Your task to perform on an android device: Search for "alienware area 51" on newegg, select the first entry, add it to the cart, then select checkout. Image 0: 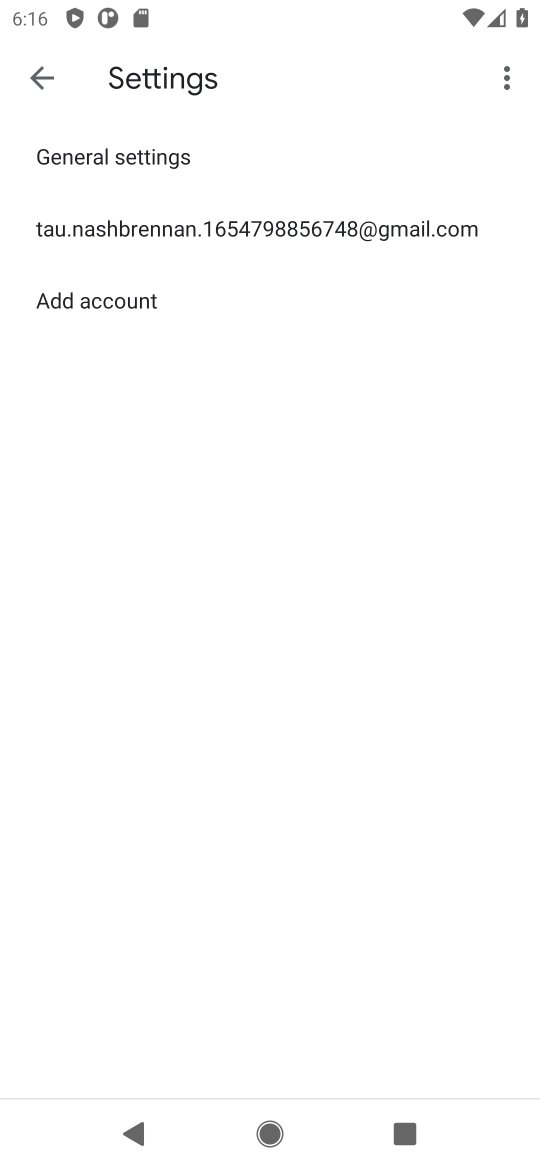
Step 0: press home button
Your task to perform on an android device: Search for "alienware area 51" on newegg, select the first entry, add it to the cart, then select checkout. Image 1: 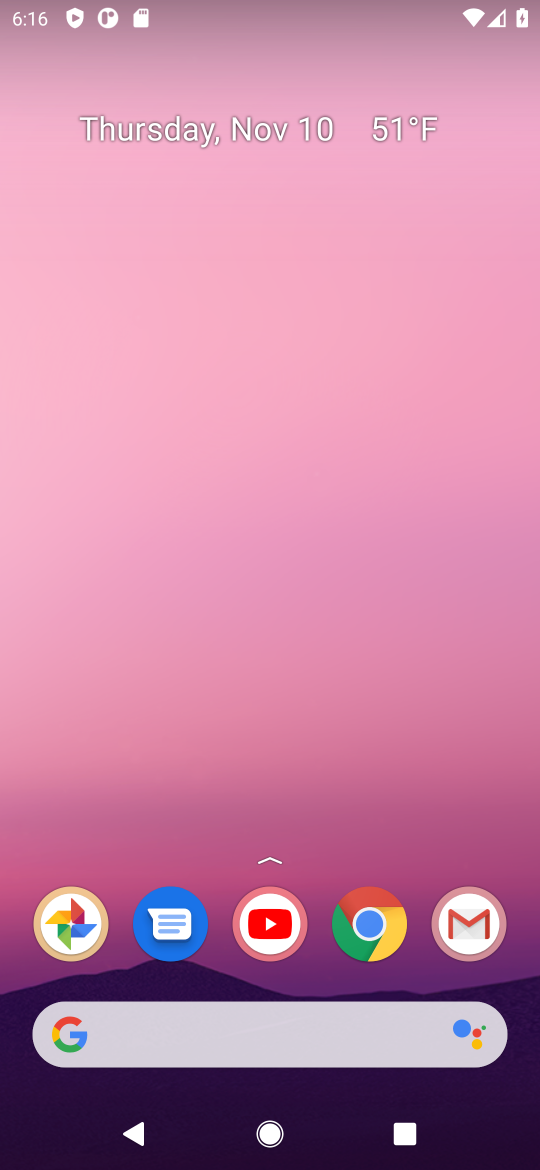
Step 1: click (384, 937)
Your task to perform on an android device: Search for "alienware area 51" on newegg, select the first entry, add it to the cart, then select checkout. Image 2: 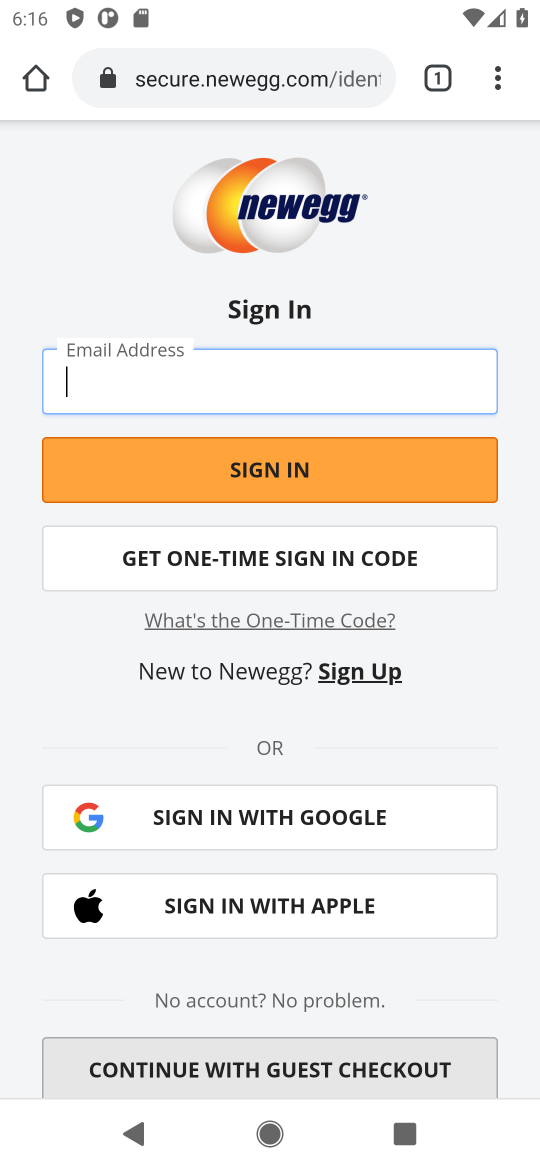
Step 2: click (255, 85)
Your task to perform on an android device: Search for "alienware area 51" on newegg, select the first entry, add it to the cart, then select checkout. Image 3: 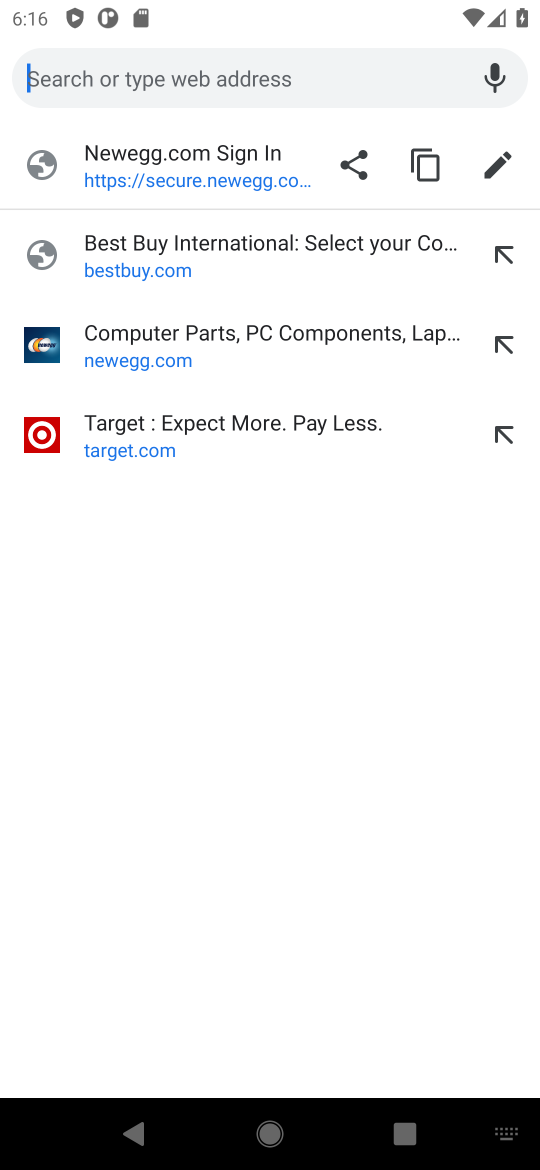
Step 3: click (116, 344)
Your task to perform on an android device: Search for "alienware area 51" on newegg, select the first entry, add it to the cart, then select checkout. Image 4: 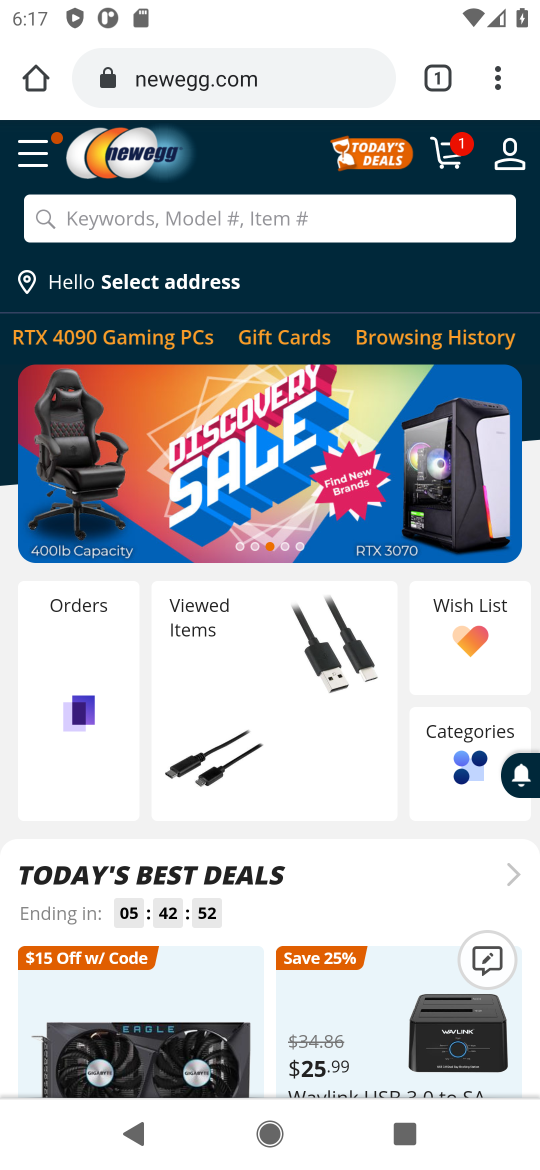
Step 4: click (147, 221)
Your task to perform on an android device: Search for "alienware area 51" on newegg, select the first entry, add it to the cart, then select checkout. Image 5: 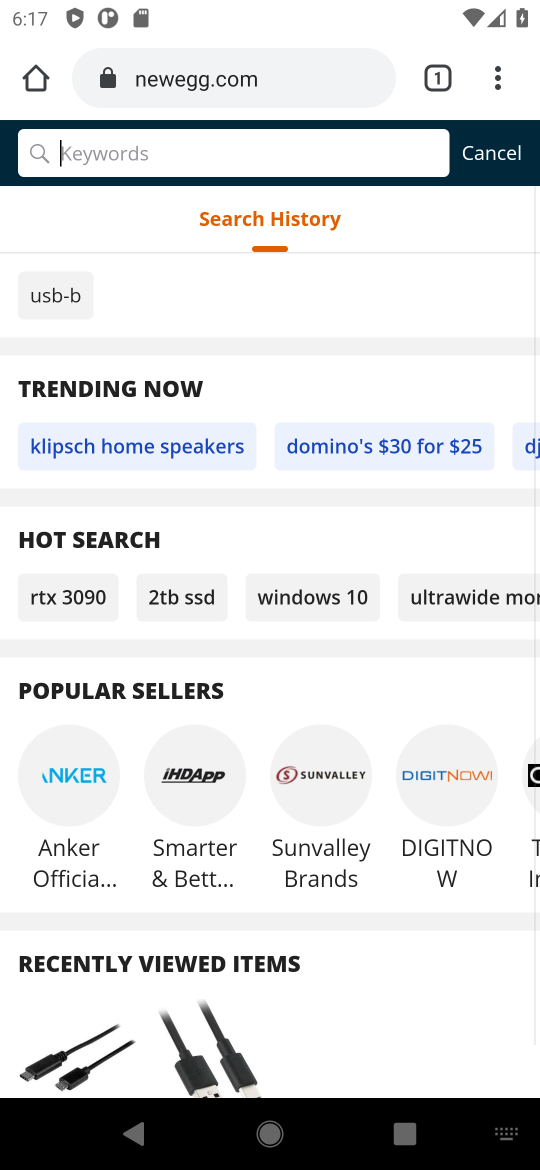
Step 5: type "alienware area 51"
Your task to perform on an android device: Search for "alienware area 51" on newegg, select the first entry, add it to the cart, then select checkout. Image 6: 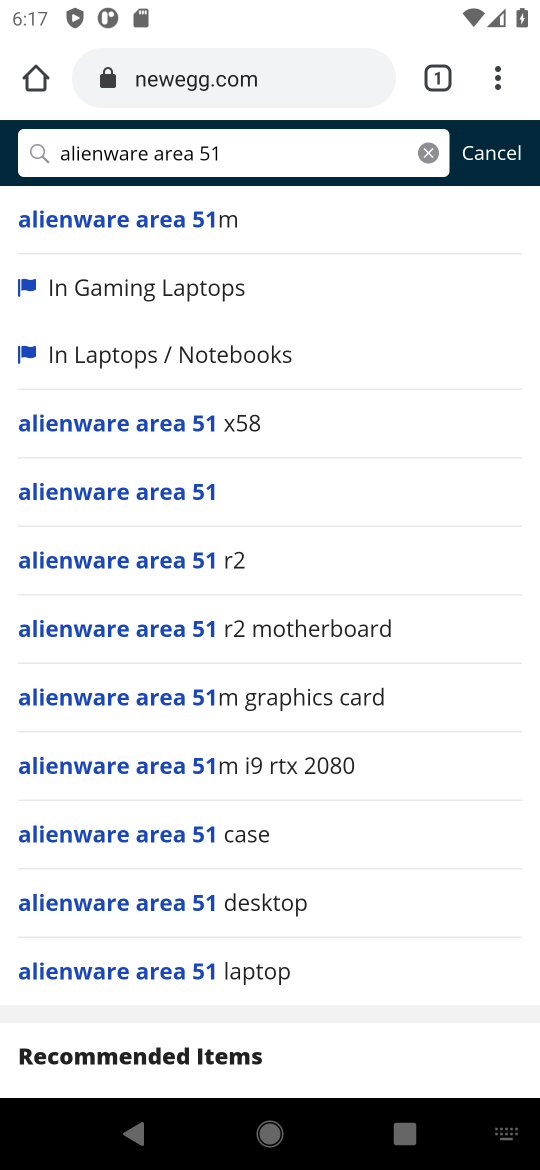
Step 6: click (129, 495)
Your task to perform on an android device: Search for "alienware area 51" on newegg, select the first entry, add it to the cart, then select checkout. Image 7: 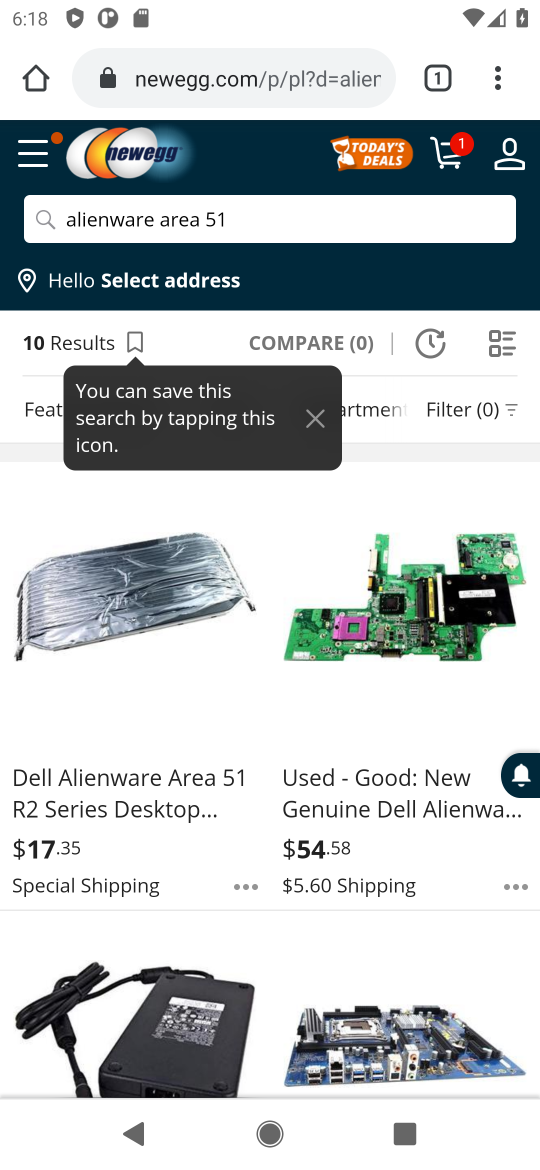
Step 7: click (116, 611)
Your task to perform on an android device: Search for "alienware area 51" on newegg, select the first entry, add it to the cart, then select checkout. Image 8: 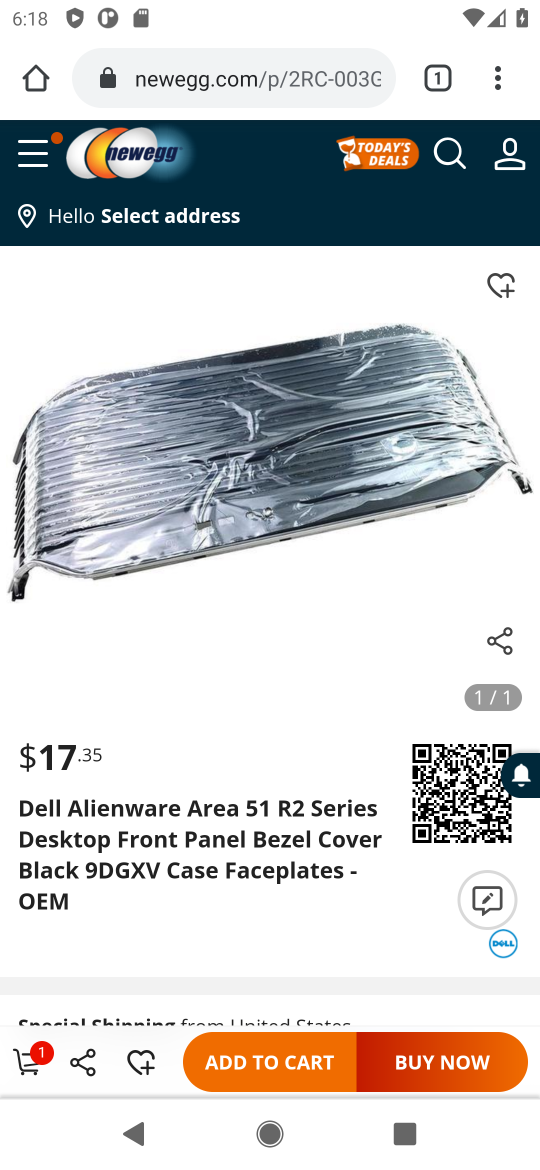
Step 8: click (253, 1057)
Your task to perform on an android device: Search for "alienware area 51" on newegg, select the first entry, add it to the cart, then select checkout. Image 9: 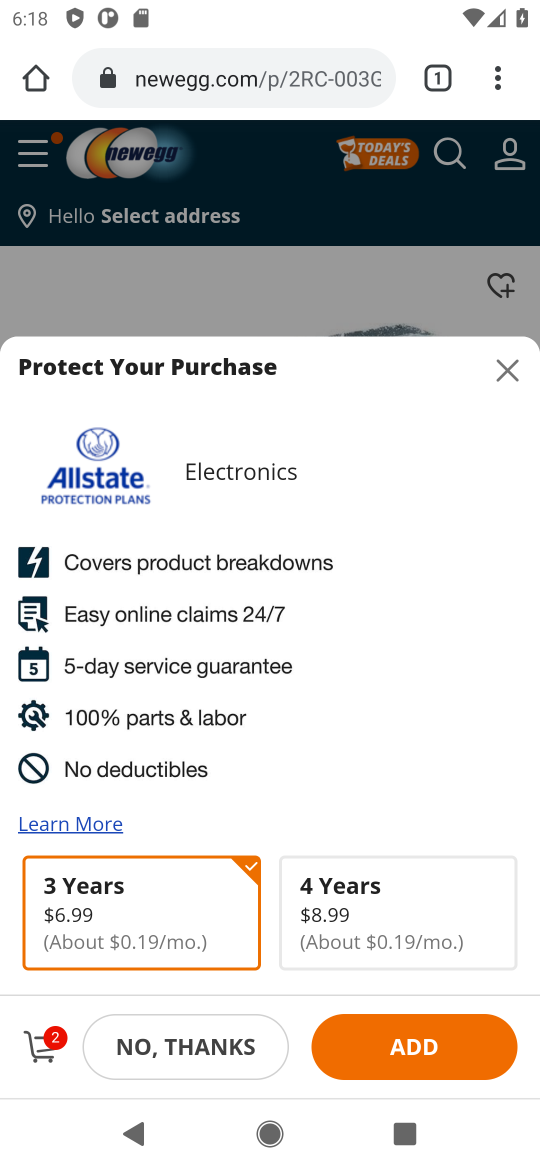
Step 9: click (37, 1047)
Your task to perform on an android device: Search for "alienware area 51" on newegg, select the first entry, add it to the cart, then select checkout. Image 10: 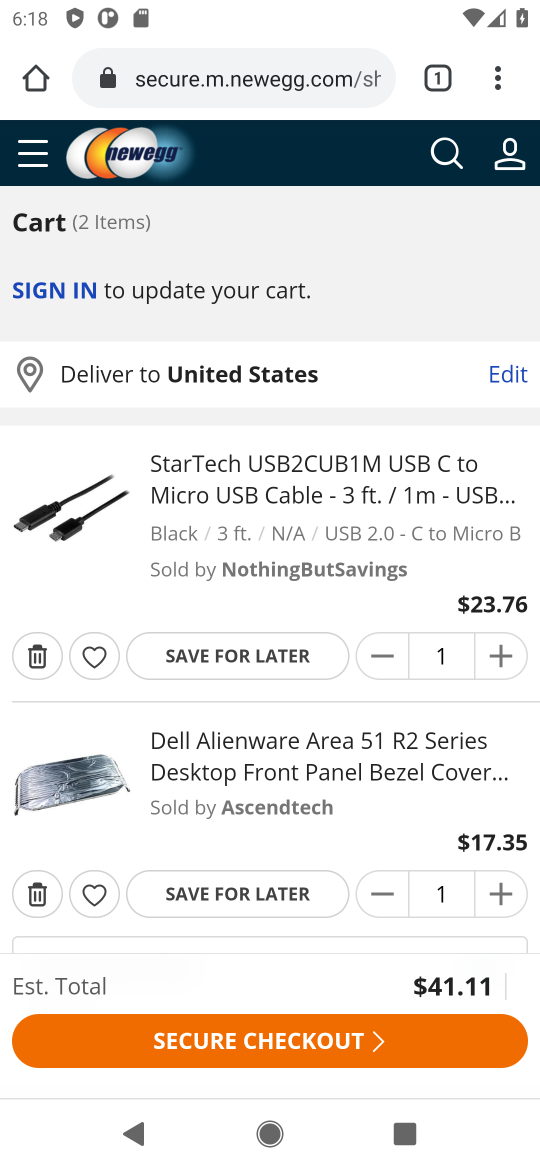
Step 10: click (206, 1043)
Your task to perform on an android device: Search for "alienware area 51" on newegg, select the first entry, add it to the cart, then select checkout. Image 11: 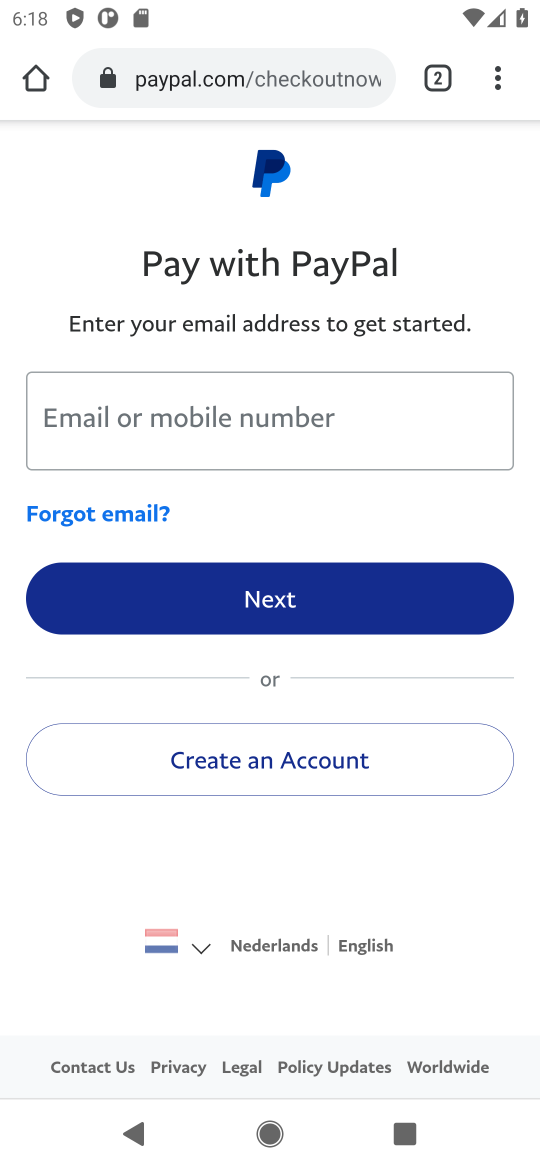
Step 11: task complete